Your task to perform on an android device: change text size in settings app Image 0: 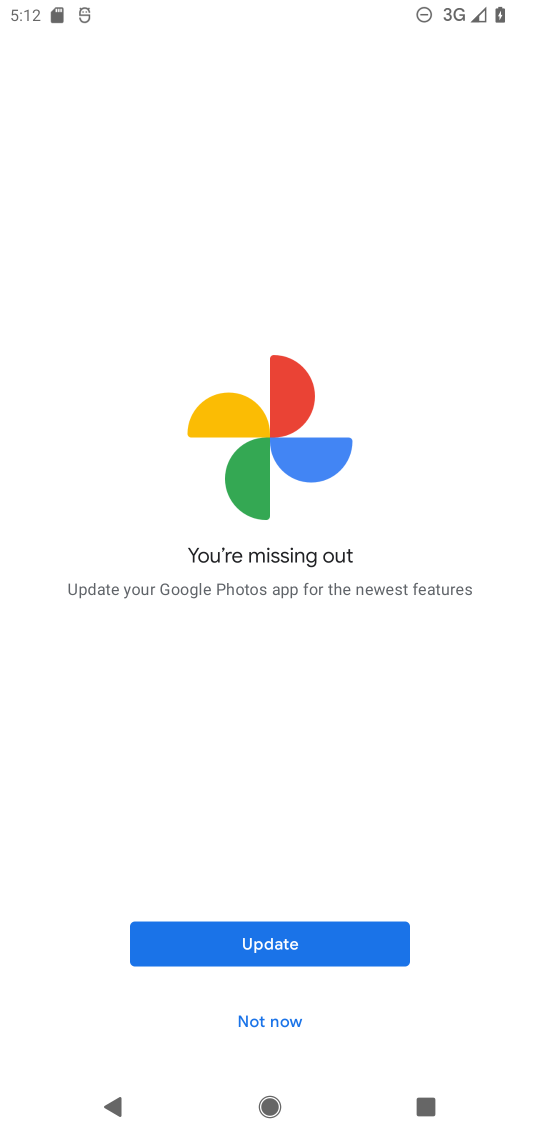
Step 0: press home button
Your task to perform on an android device: change text size in settings app Image 1: 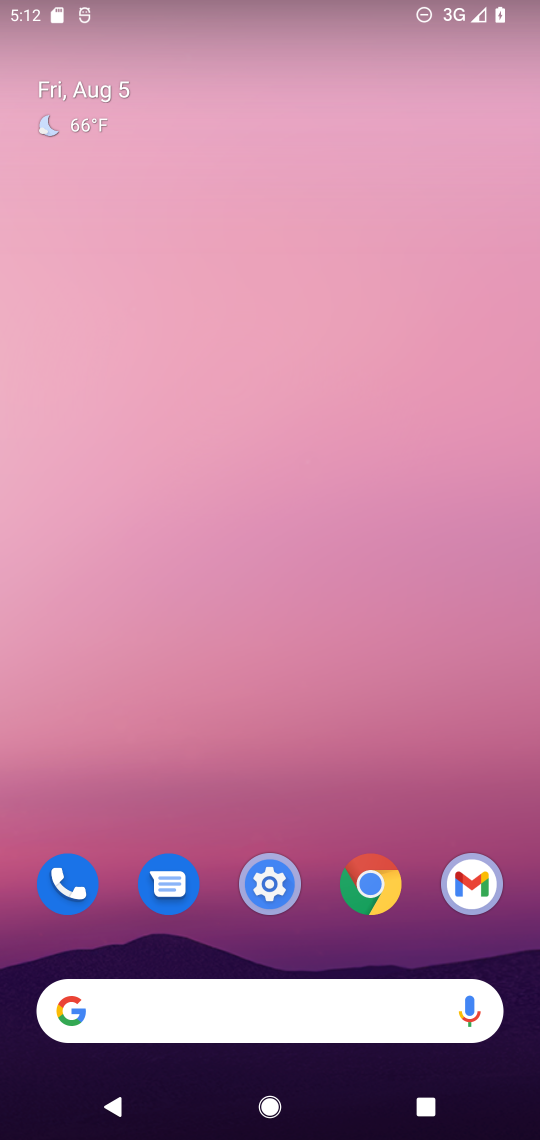
Step 1: drag from (530, 969) to (288, 14)
Your task to perform on an android device: change text size in settings app Image 2: 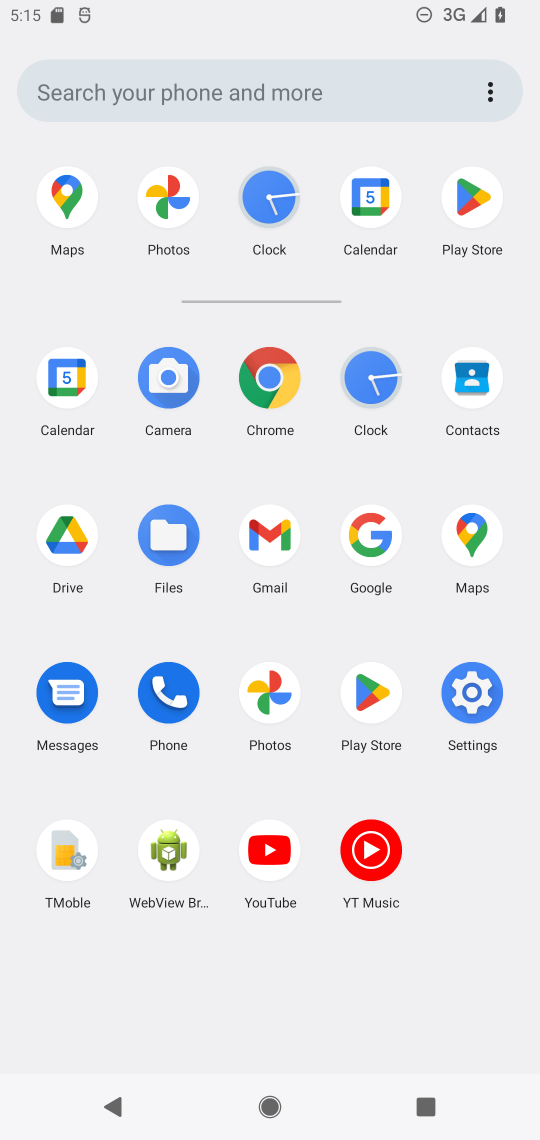
Step 2: click (463, 689)
Your task to perform on an android device: change text size in settings app Image 3: 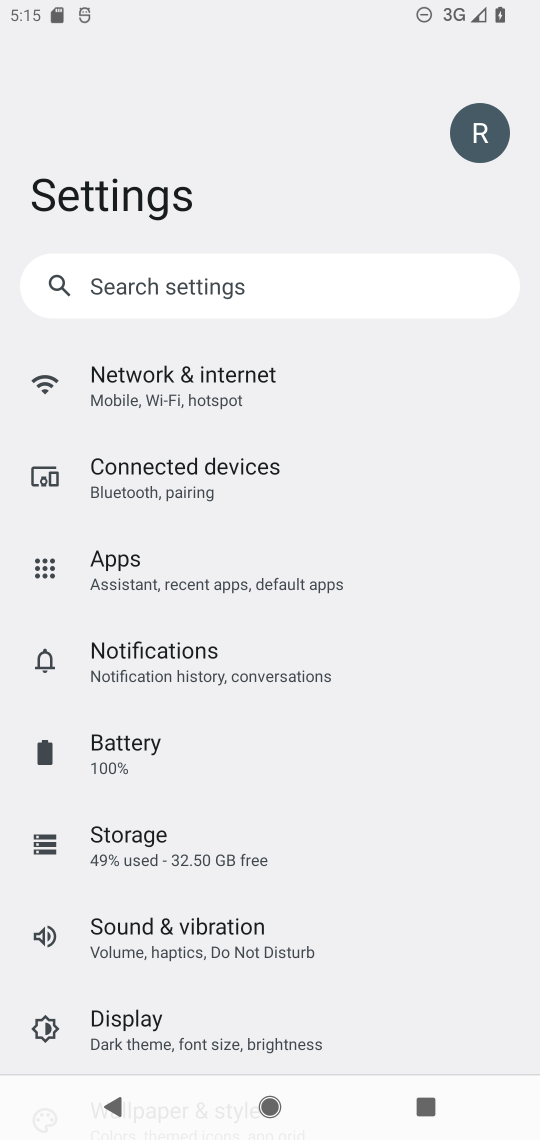
Step 3: click (203, 1030)
Your task to perform on an android device: change text size in settings app Image 4: 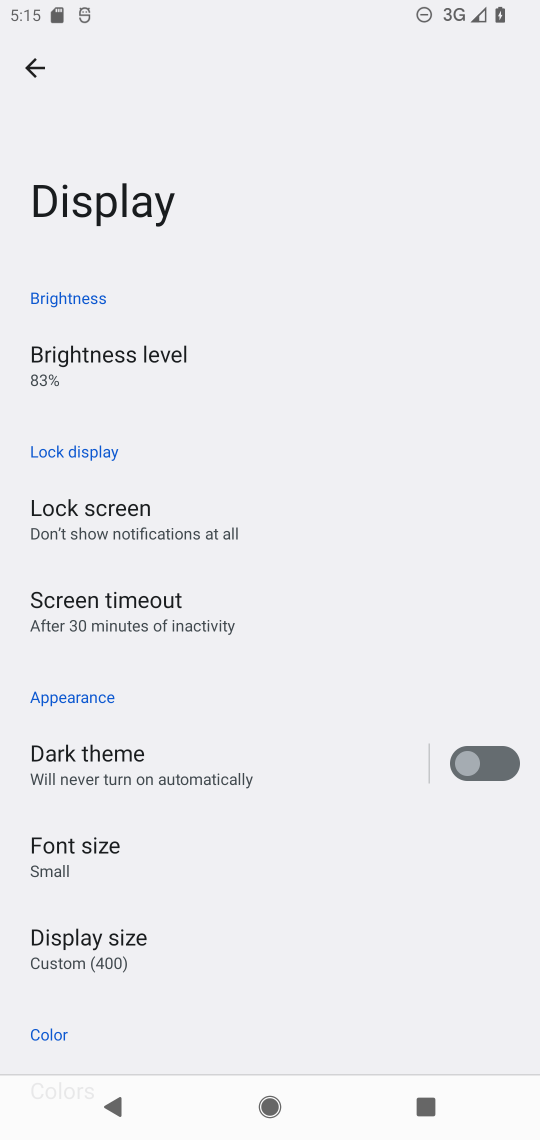
Step 4: click (144, 940)
Your task to perform on an android device: change text size in settings app Image 5: 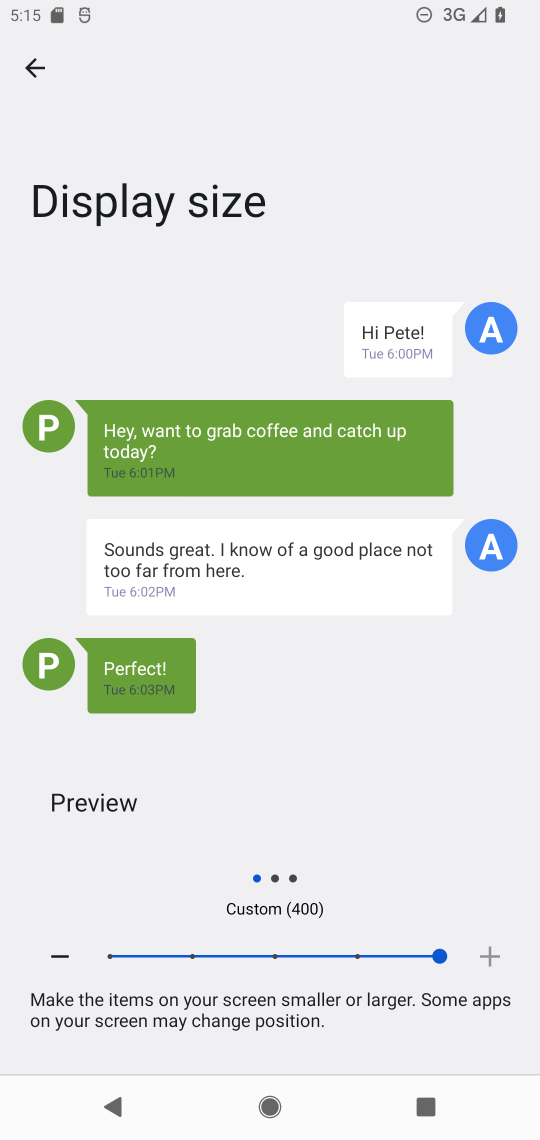
Step 5: click (355, 956)
Your task to perform on an android device: change text size in settings app Image 6: 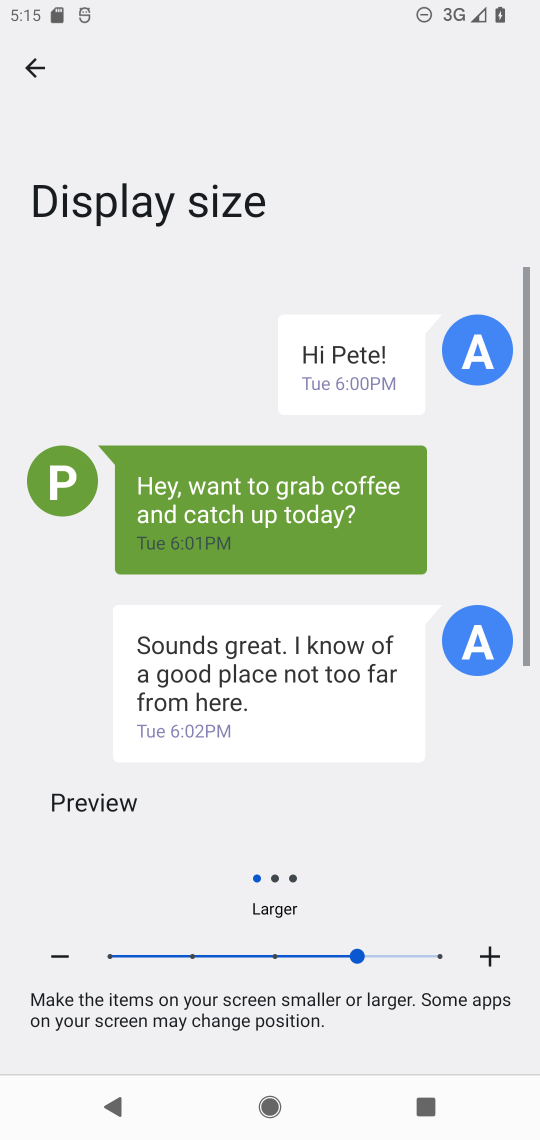
Step 6: task complete